Your task to perform on an android device: turn on improve location accuracy Image 0: 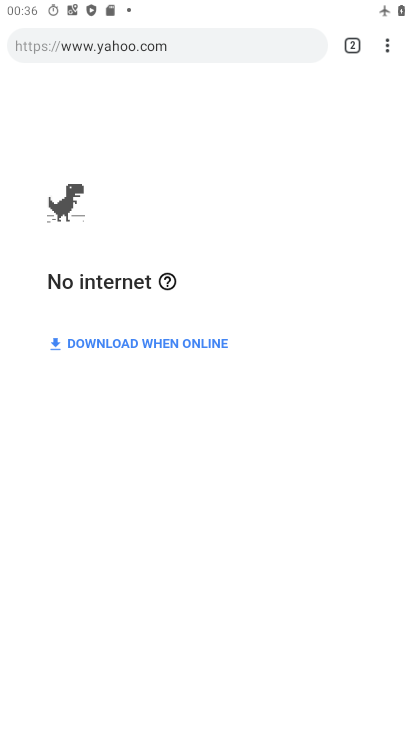
Step 0: press home button
Your task to perform on an android device: turn on improve location accuracy Image 1: 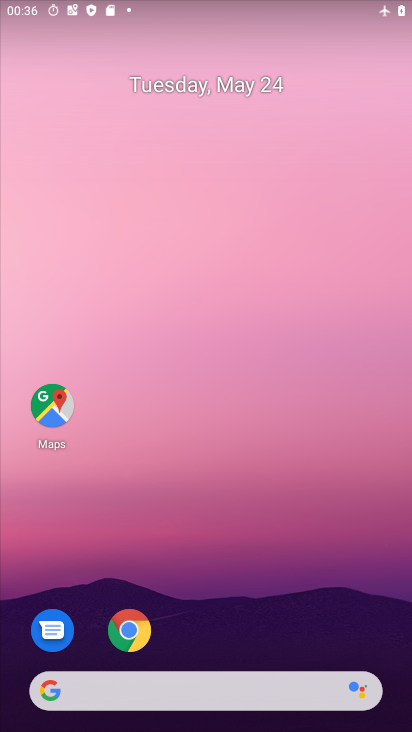
Step 1: drag from (247, 642) to (234, 2)
Your task to perform on an android device: turn on improve location accuracy Image 2: 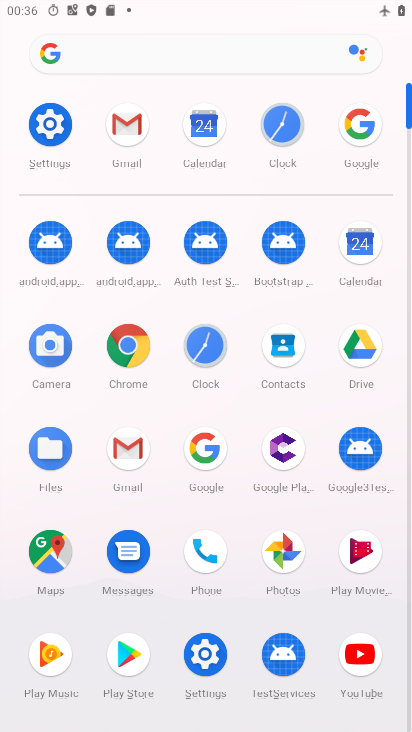
Step 2: click (51, 129)
Your task to perform on an android device: turn on improve location accuracy Image 3: 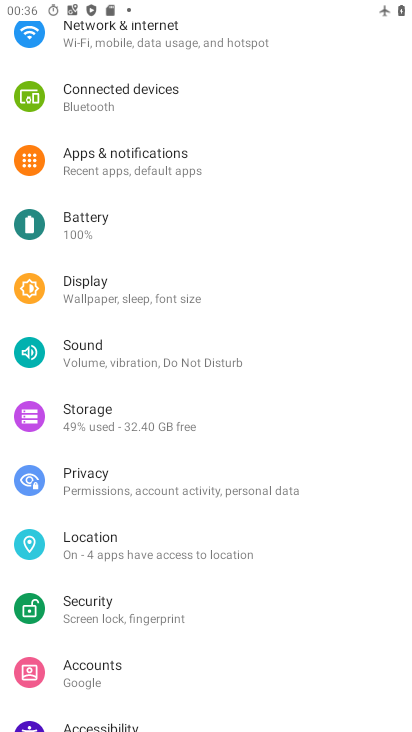
Step 3: click (75, 536)
Your task to perform on an android device: turn on improve location accuracy Image 4: 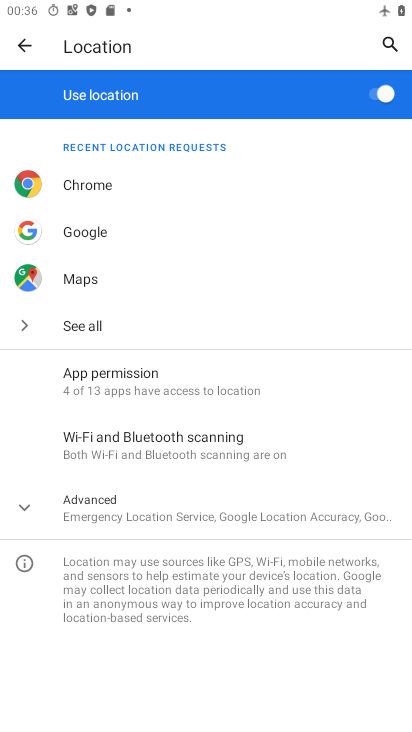
Step 4: click (20, 511)
Your task to perform on an android device: turn on improve location accuracy Image 5: 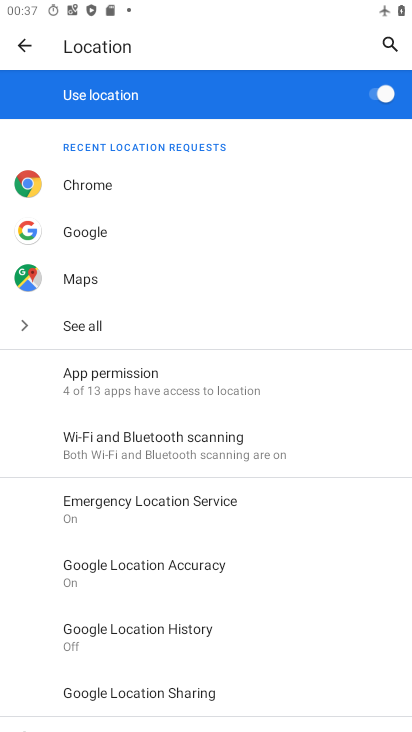
Step 5: click (138, 566)
Your task to perform on an android device: turn on improve location accuracy Image 6: 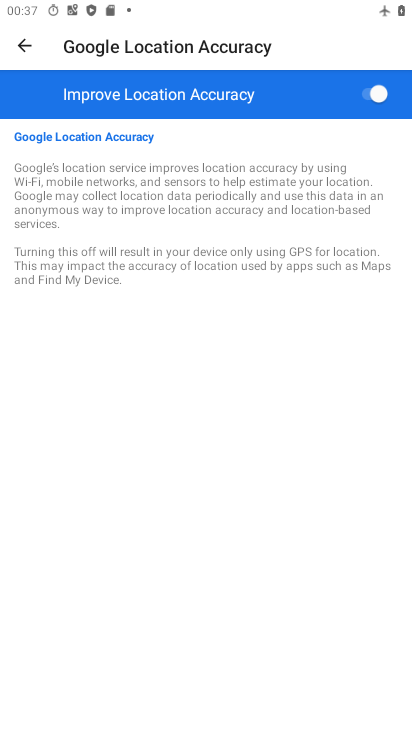
Step 6: task complete